Your task to perform on an android device: turn on wifi Image 0: 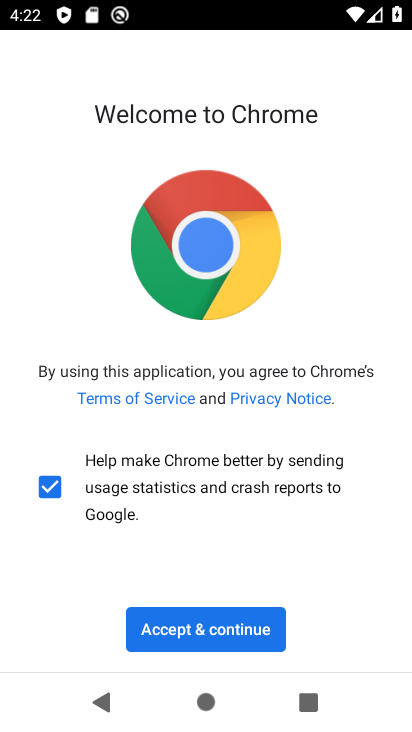
Step 0: press home button
Your task to perform on an android device: turn on wifi Image 1: 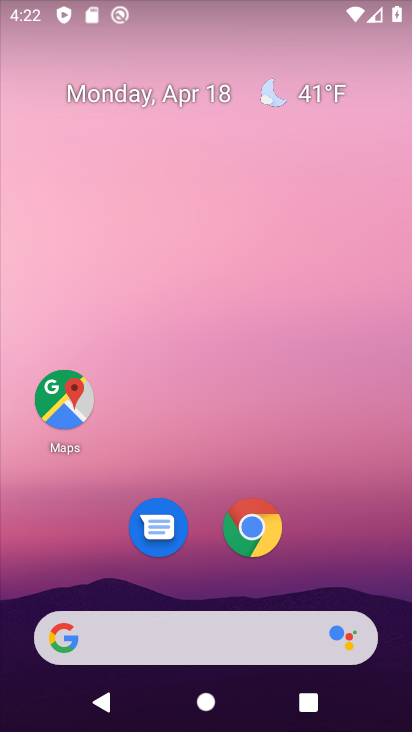
Step 1: drag from (347, 536) to (340, 187)
Your task to perform on an android device: turn on wifi Image 2: 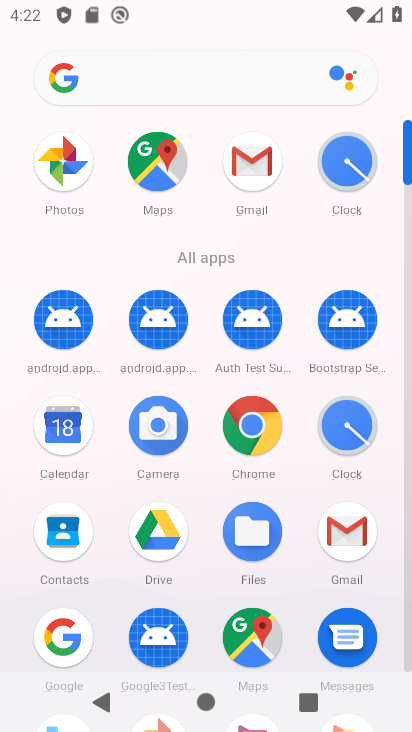
Step 2: drag from (288, 561) to (307, 233)
Your task to perform on an android device: turn on wifi Image 3: 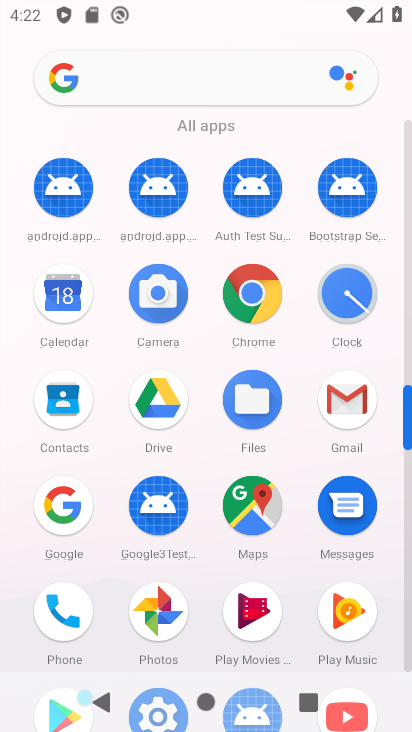
Step 3: drag from (292, 580) to (341, 267)
Your task to perform on an android device: turn on wifi Image 4: 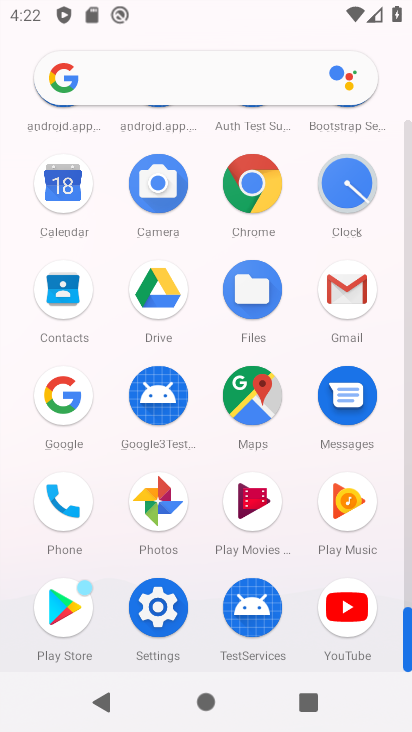
Step 4: click (152, 613)
Your task to perform on an android device: turn on wifi Image 5: 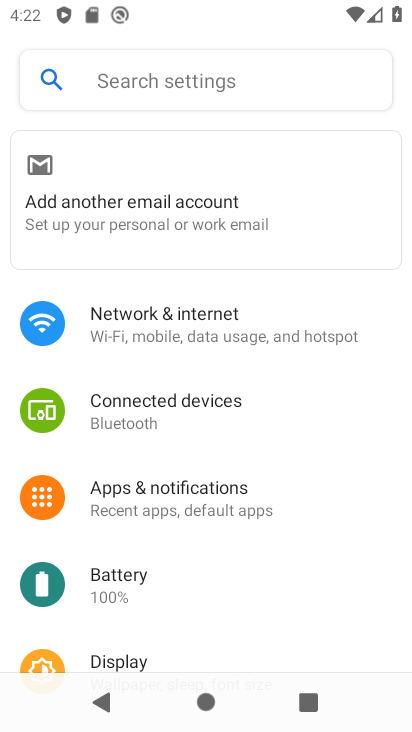
Step 5: click (176, 343)
Your task to perform on an android device: turn on wifi Image 6: 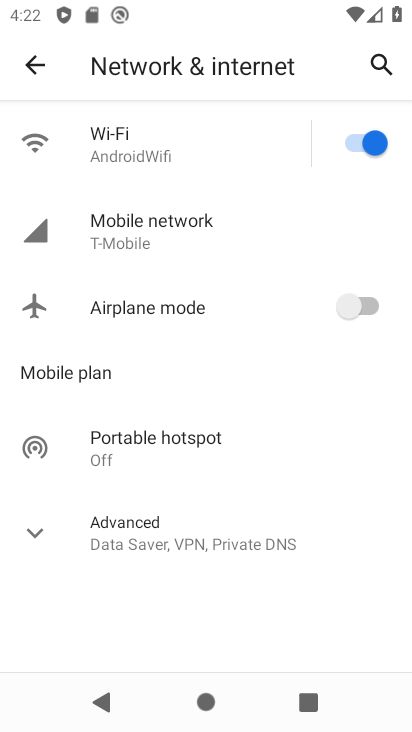
Step 6: click (159, 151)
Your task to perform on an android device: turn on wifi Image 7: 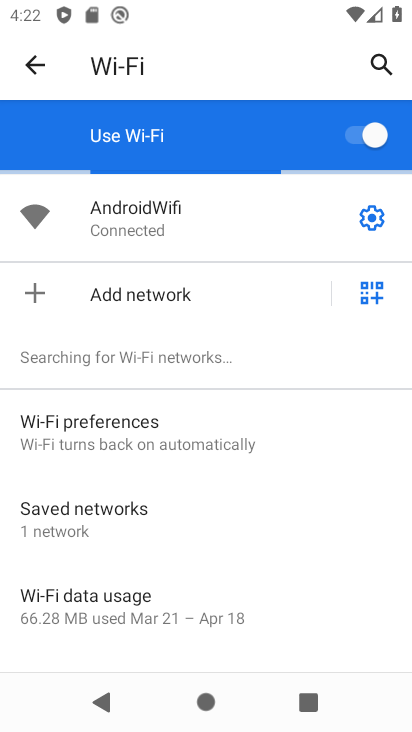
Step 7: task complete